Your task to perform on an android device: Open Google Chrome and open the bookmarks view Image 0: 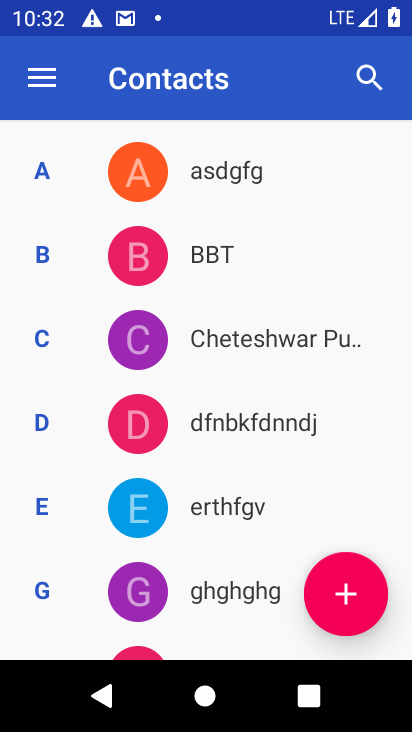
Step 0: press back button
Your task to perform on an android device: Open Google Chrome and open the bookmarks view Image 1: 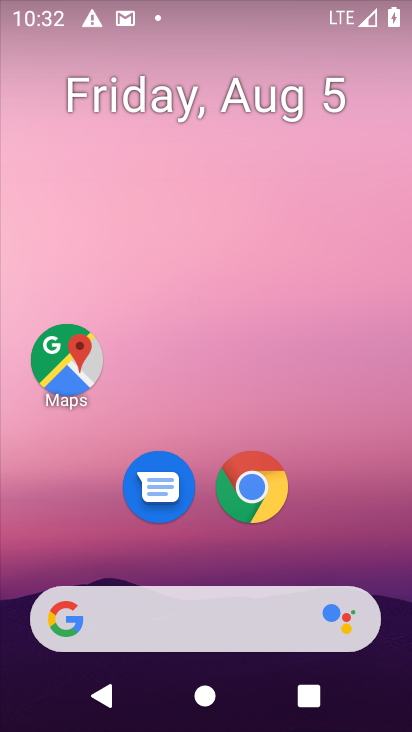
Step 1: click (259, 489)
Your task to perform on an android device: Open Google Chrome and open the bookmarks view Image 2: 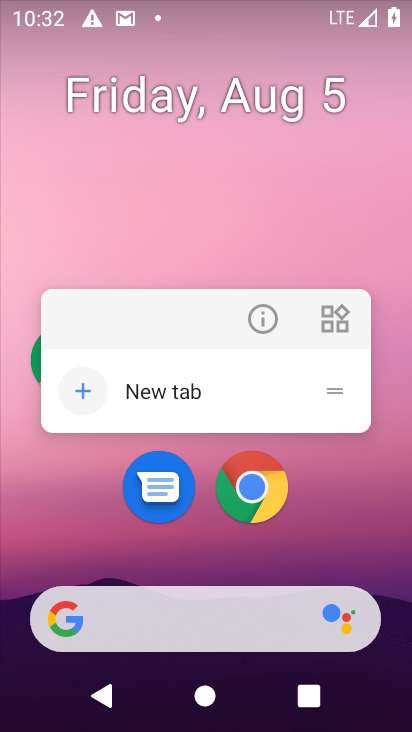
Step 2: click (251, 478)
Your task to perform on an android device: Open Google Chrome and open the bookmarks view Image 3: 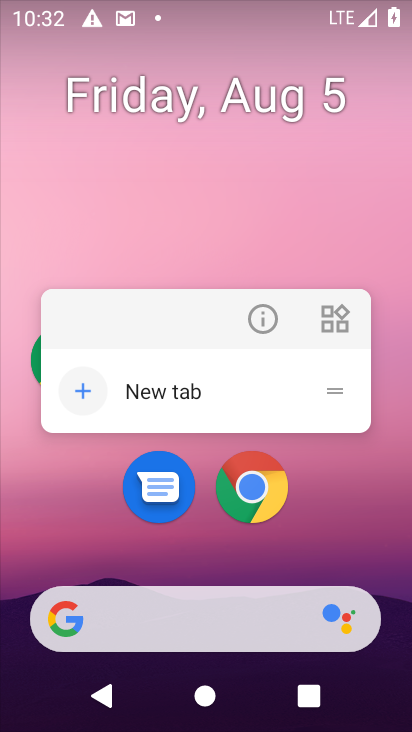
Step 3: click (254, 488)
Your task to perform on an android device: Open Google Chrome and open the bookmarks view Image 4: 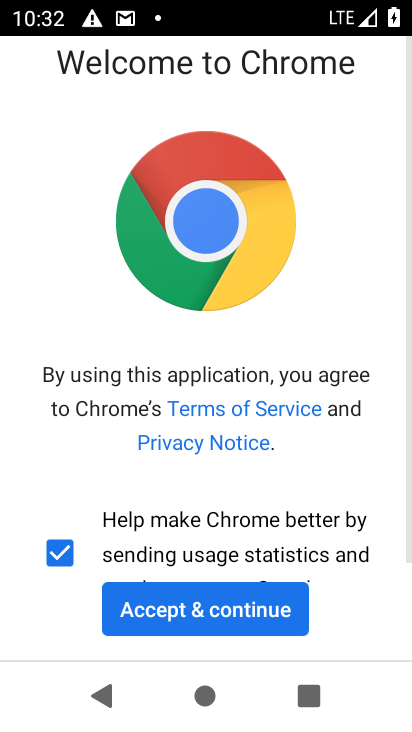
Step 4: click (182, 619)
Your task to perform on an android device: Open Google Chrome and open the bookmarks view Image 5: 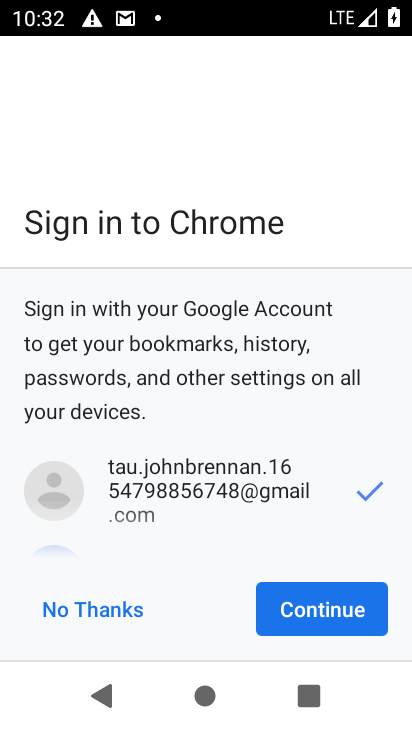
Step 5: click (287, 616)
Your task to perform on an android device: Open Google Chrome and open the bookmarks view Image 6: 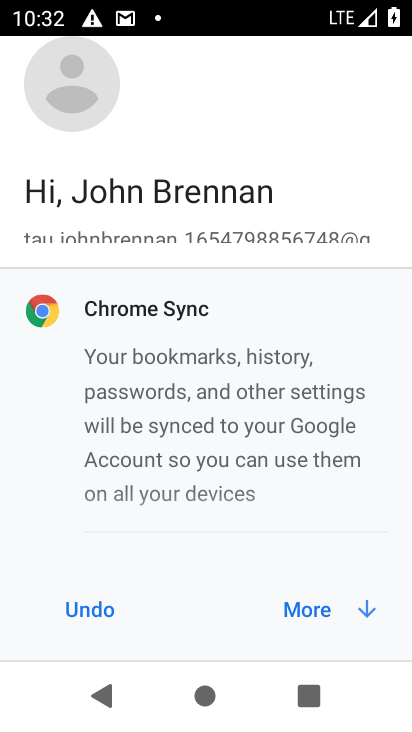
Step 6: click (294, 611)
Your task to perform on an android device: Open Google Chrome and open the bookmarks view Image 7: 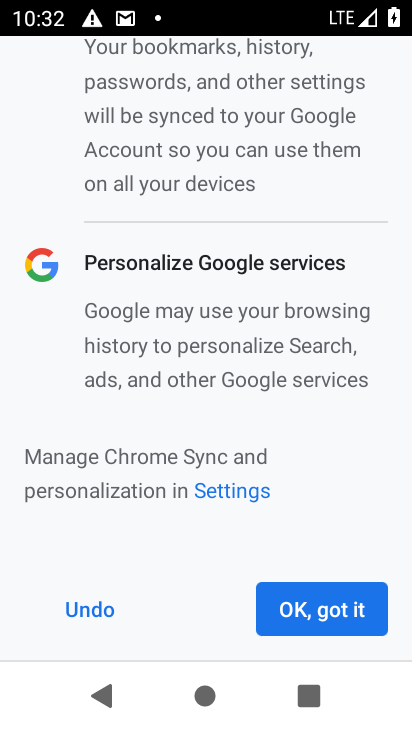
Step 7: click (294, 611)
Your task to perform on an android device: Open Google Chrome and open the bookmarks view Image 8: 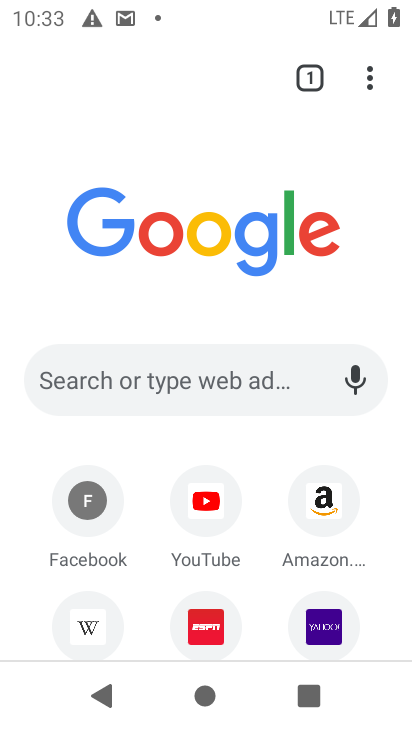
Step 8: task complete